Your task to perform on an android device: change notifications settings Image 0: 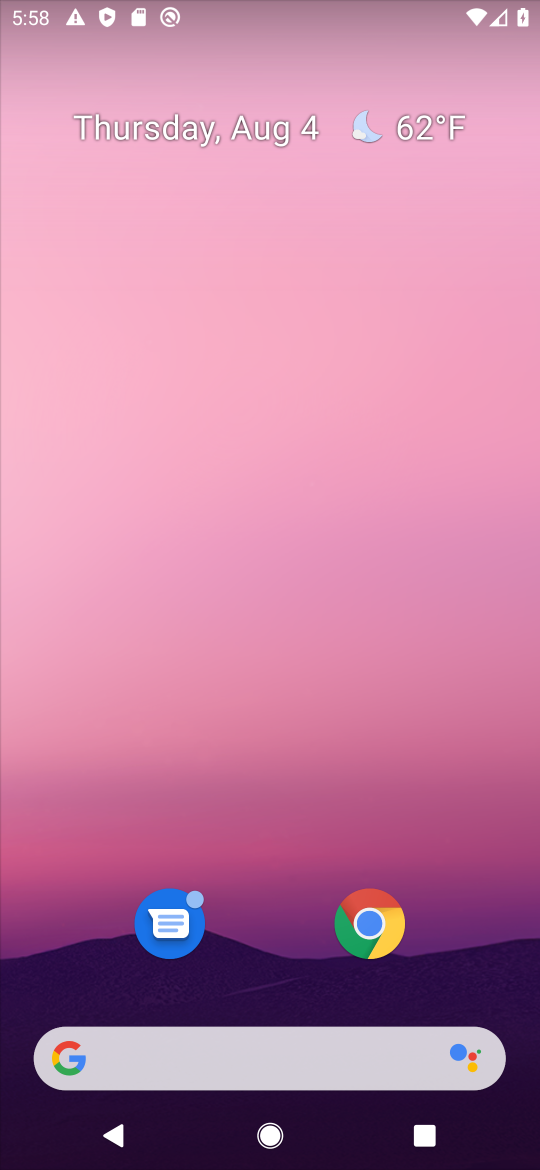
Step 0: drag from (494, 903) to (433, 114)
Your task to perform on an android device: change notifications settings Image 1: 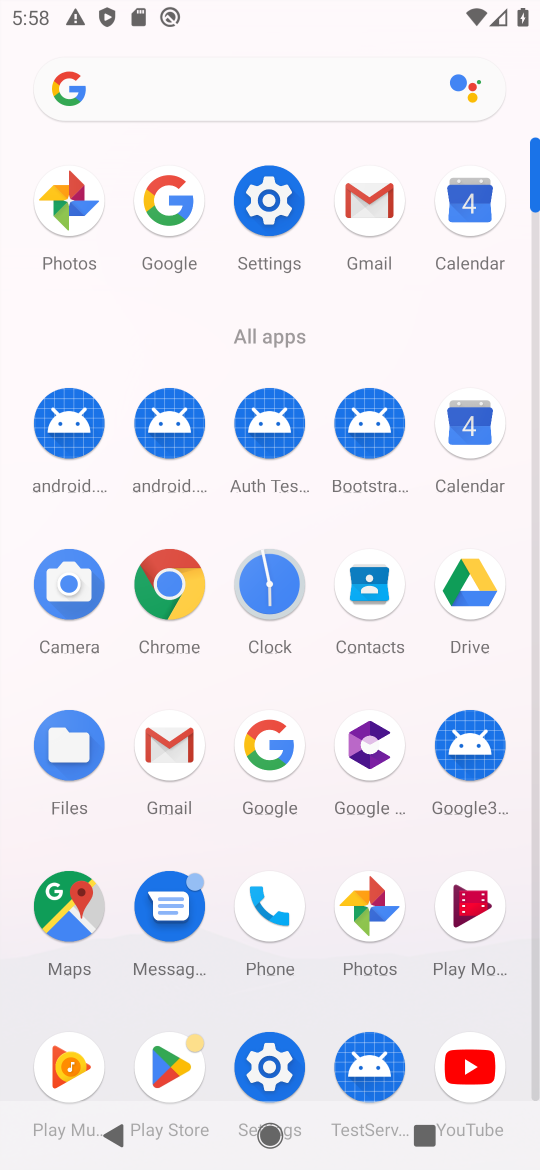
Step 1: click (265, 1064)
Your task to perform on an android device: change notifications settings Image 2: 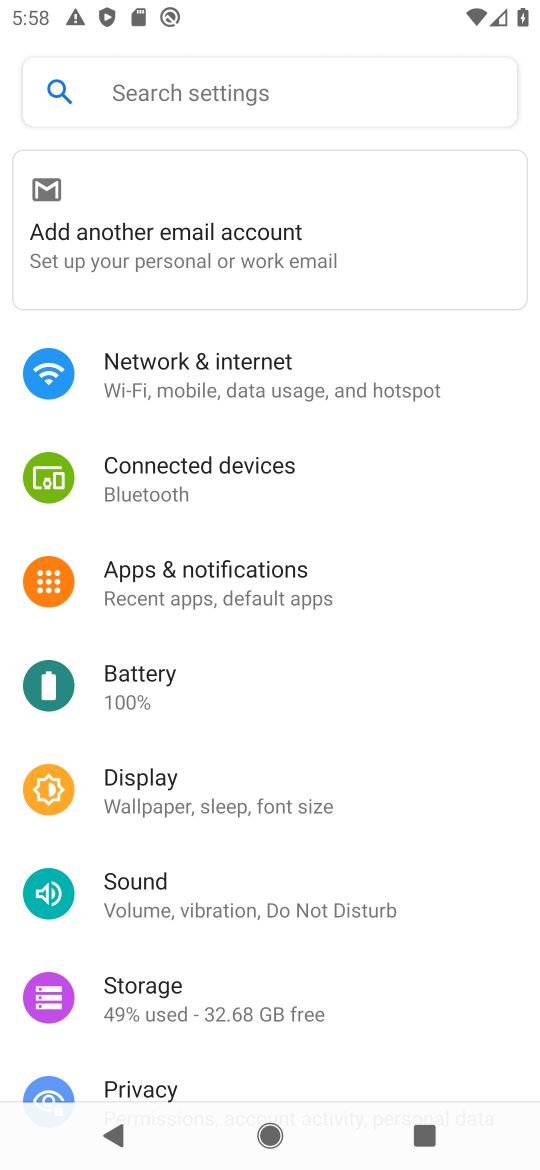
Step 2: click (224, 571)
Your task to perform on an android device: change notifications settings Image 3: 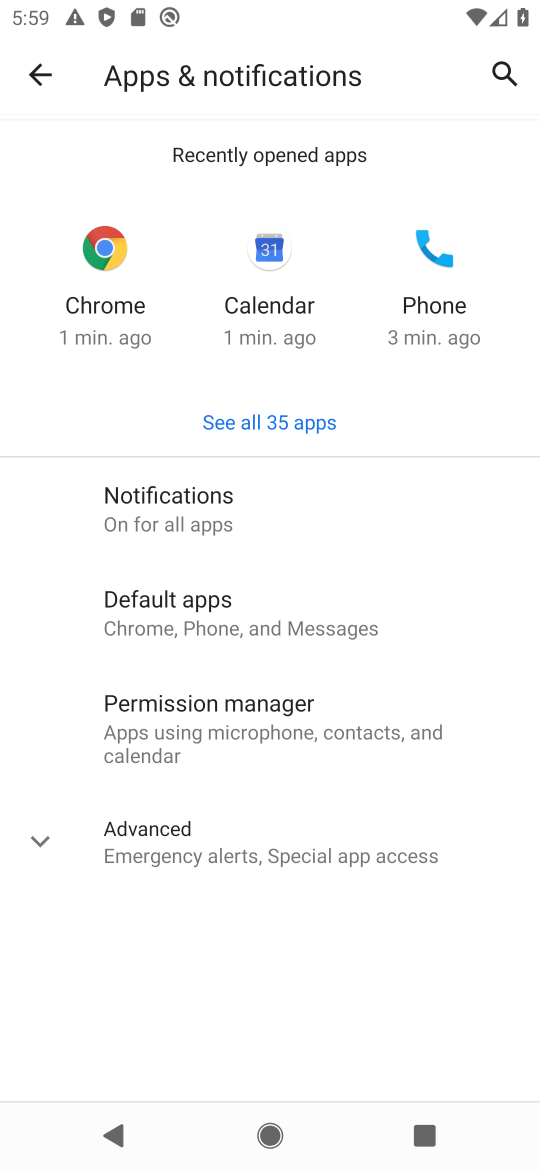
Step 3: click (265, 528)
Your task to perform on an android device: change notifications settings Image 4: 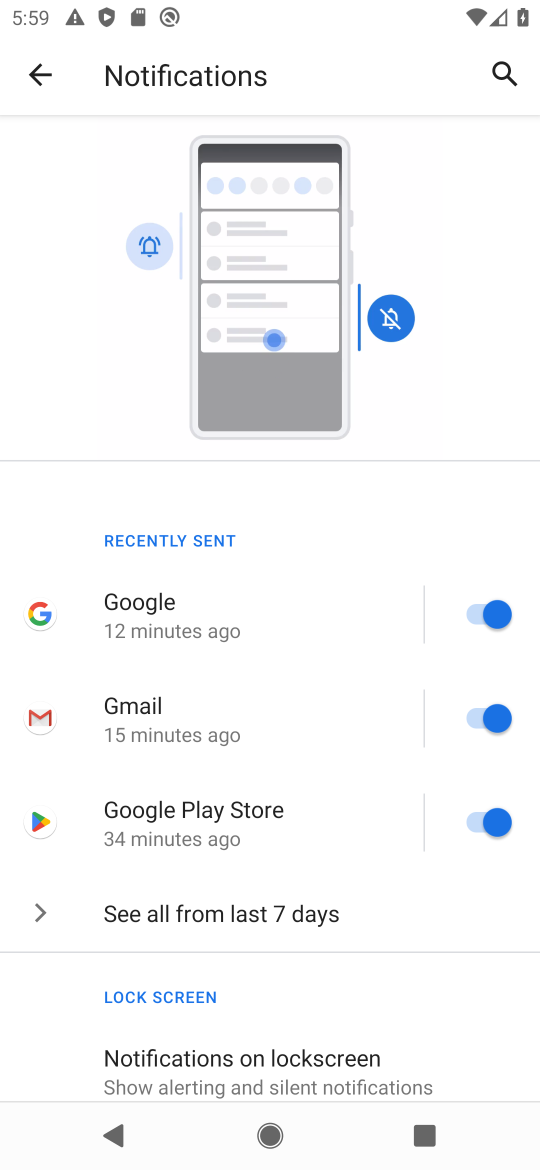
Step 4: drag from (386, 1024) to (331, 628)
Your task to perform on an android device: change notifications settings Image 5: 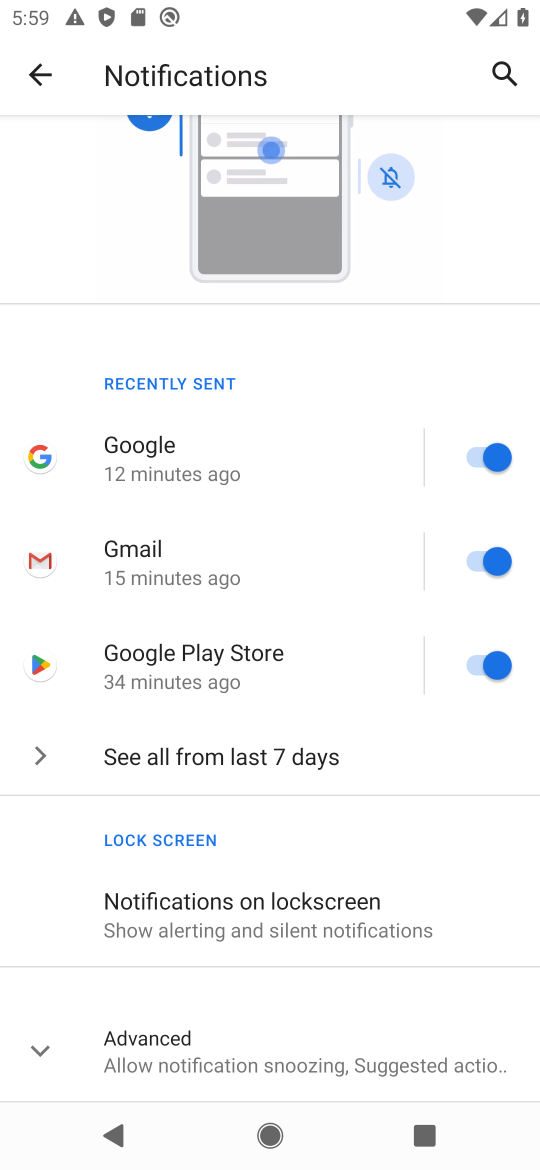
Step 5: click (230, 1065)
Your task to perform on an android device: change notifications settings Image 6: 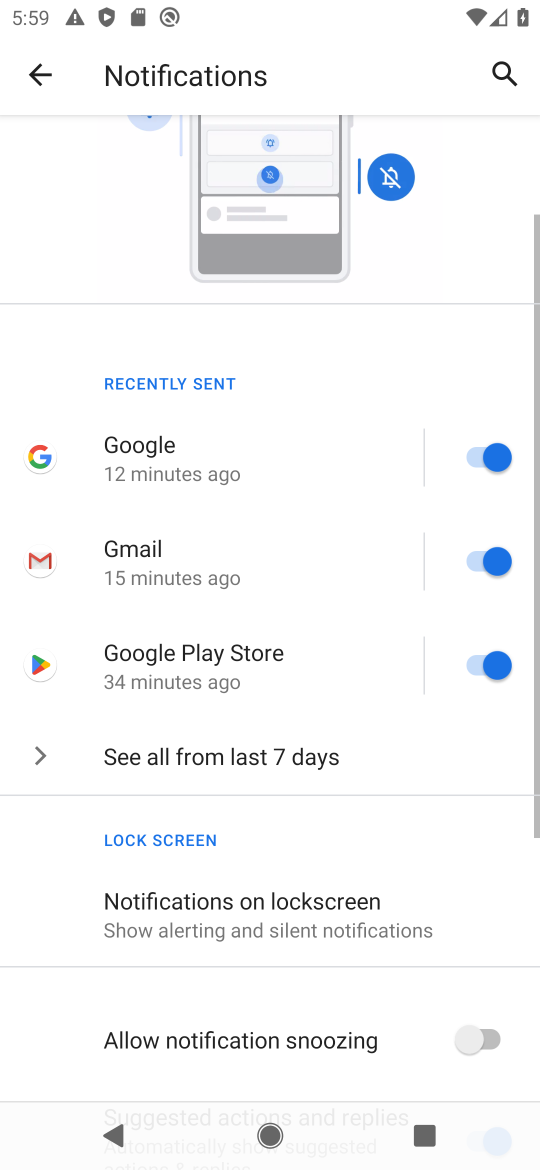
Step 6: drag from (284, 1044) to (241, 738)
Your task to perform on an android device: change notifications settings Image 7: 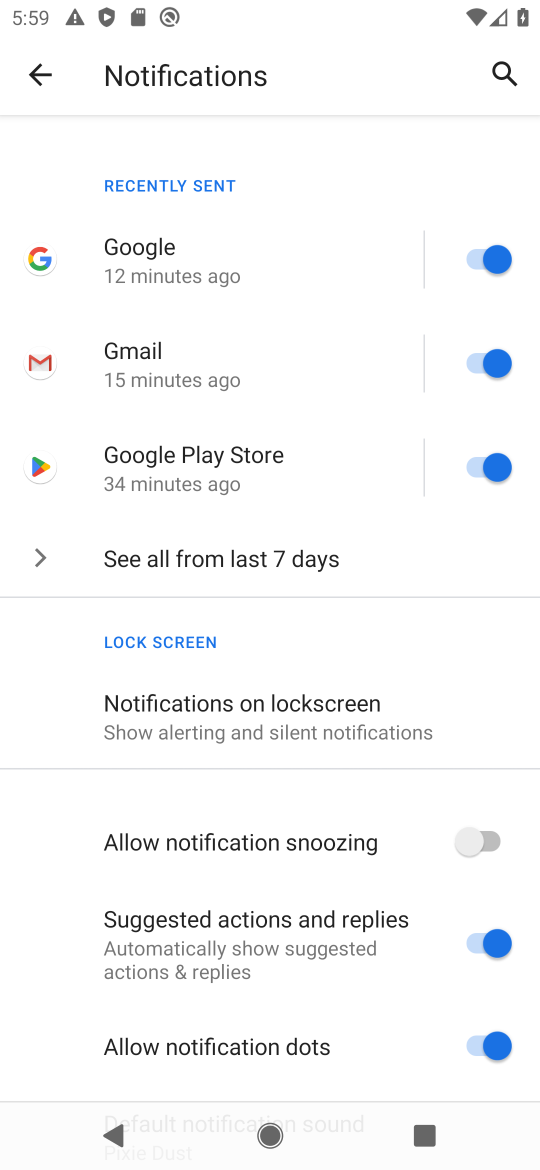
Step 7: click (475, 844)
Your task to perform on an android device: change notifications settings Image 8: 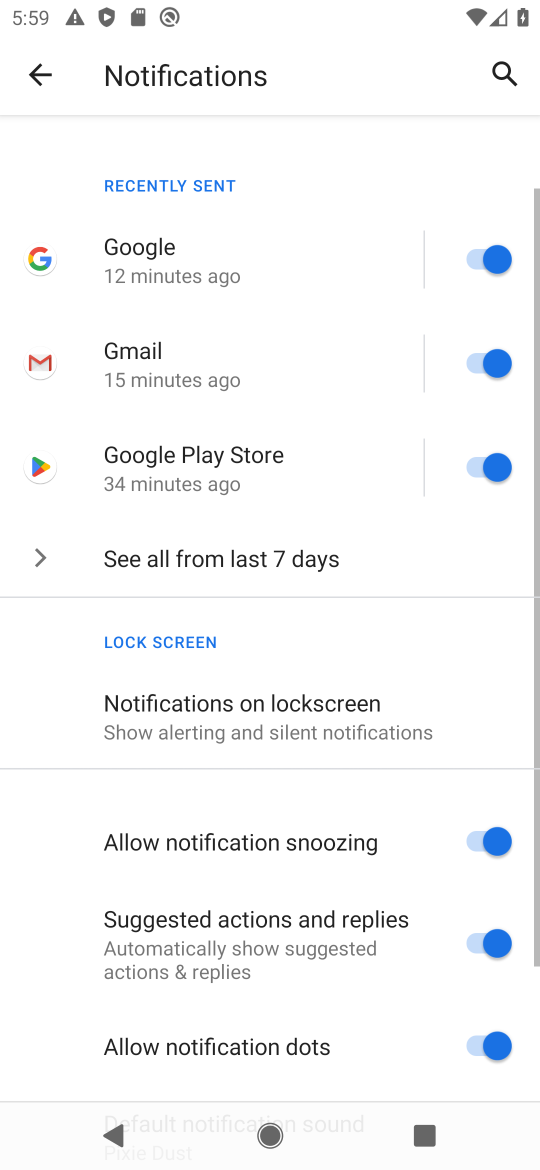
Step 8: click (499, 936)
Your task to perform on an android device: change notifications settings Image 9: 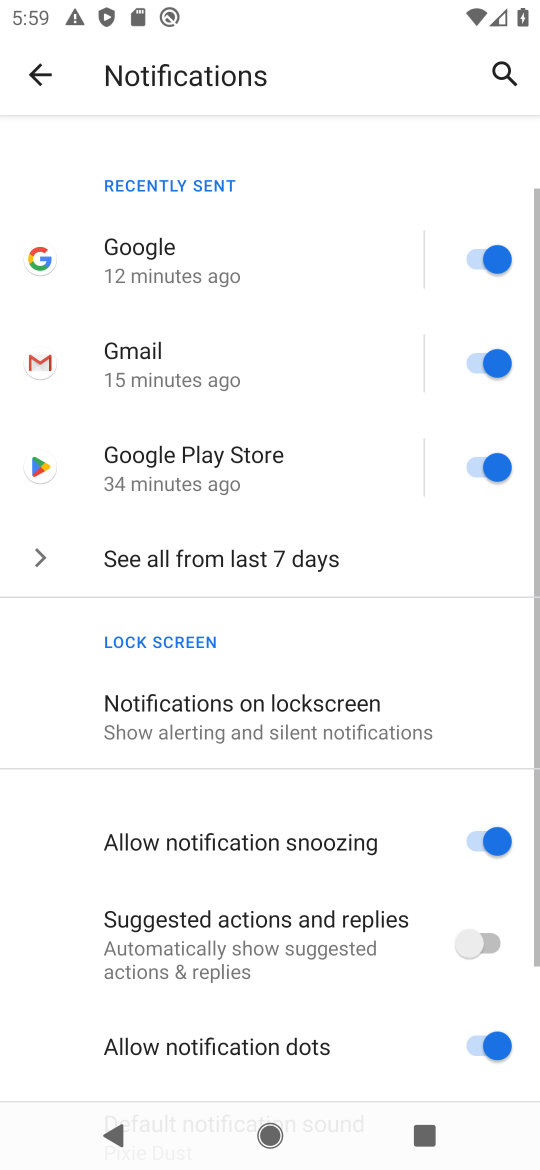
Step 9: click (499, 1058)
Your task to perform on an android device: change notifications settings Image 10: 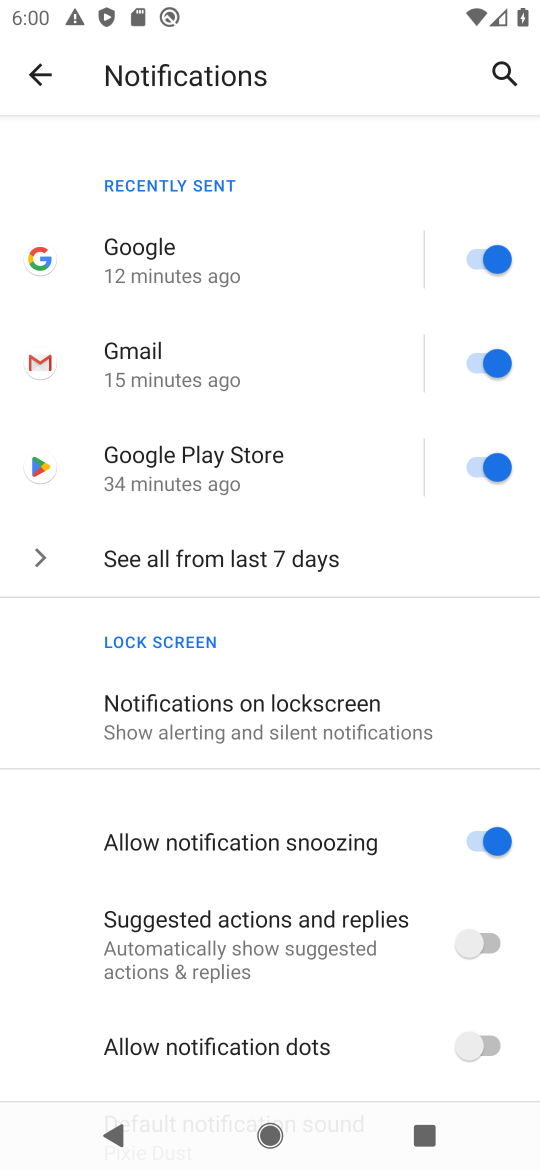
Step 10: task complete